Your task to perform on an android device: turn on wifi Image 0: 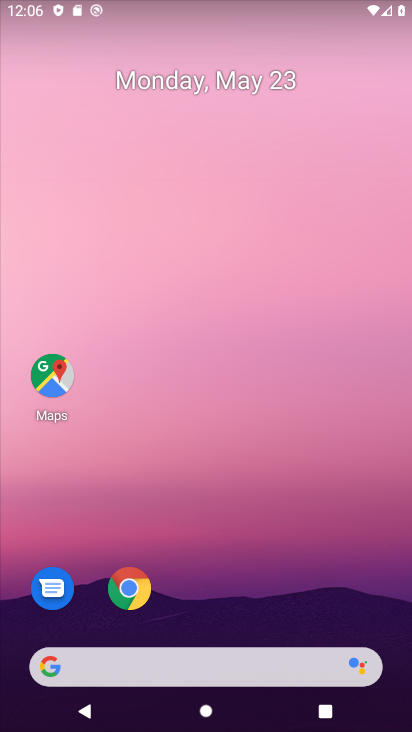
Step 0: click (214, 210)
Your task to perform on an android device: turn on wifi Image 1: 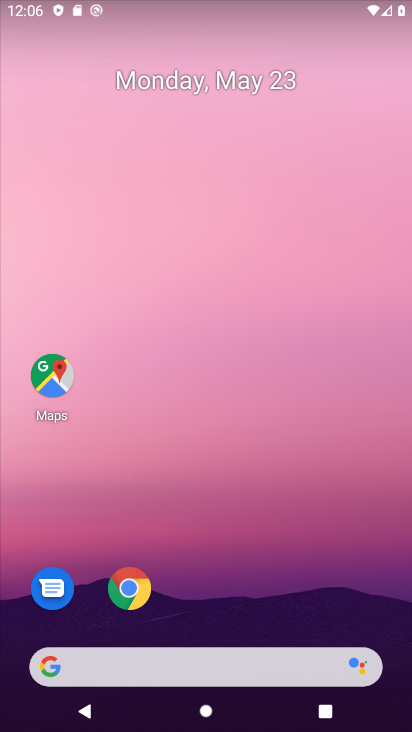
Step 1: drag from (224, 726) to (227, 101)
Your task to perform on an android device: turn on wifi Image 2: 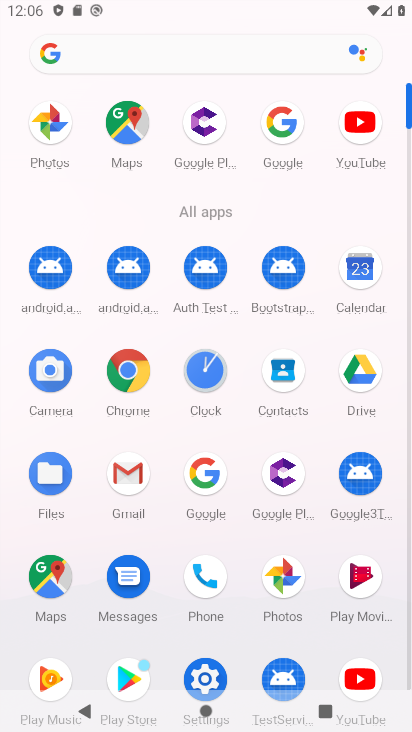
Step 2: click (204, 667)
Your task to perform on an android device: turn on wifi Image 3: 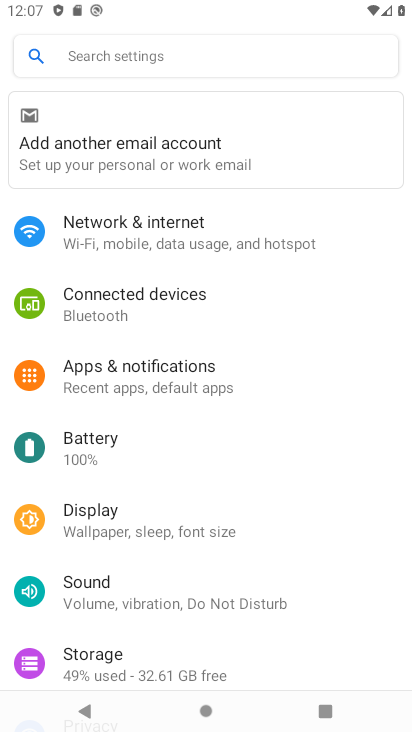
Step 3: click (139, 233)
Your task to perform on an android device: turn on wifi Image 4: 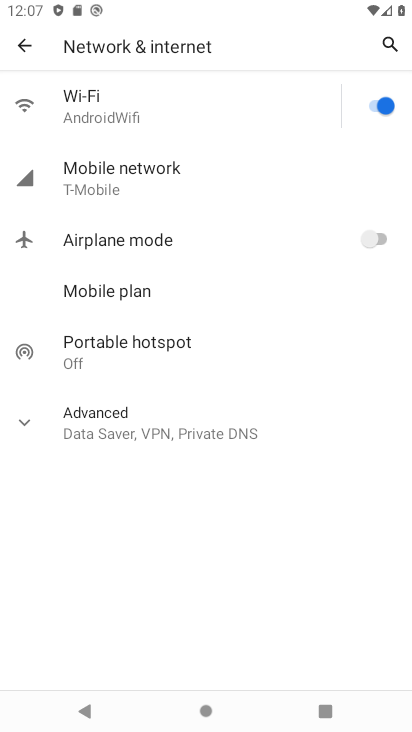
Step 4: task complete